Your task to perform on an android device: change the clock display to analog Image 0: 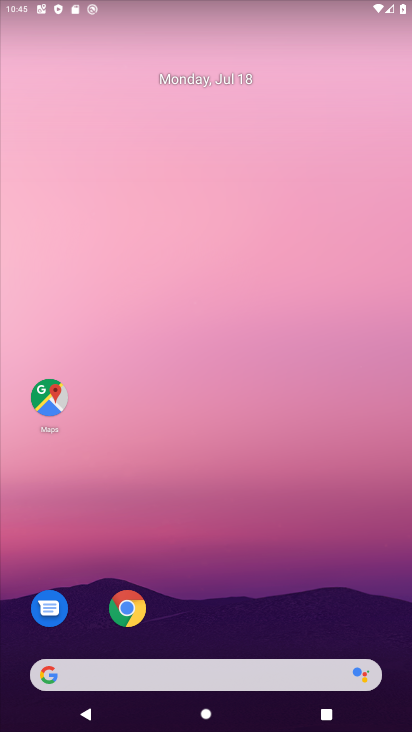
Step 0: drag from (261, 642) to (273, 87)
Your task to perform on an android device: change the clock display to analog Image 1: 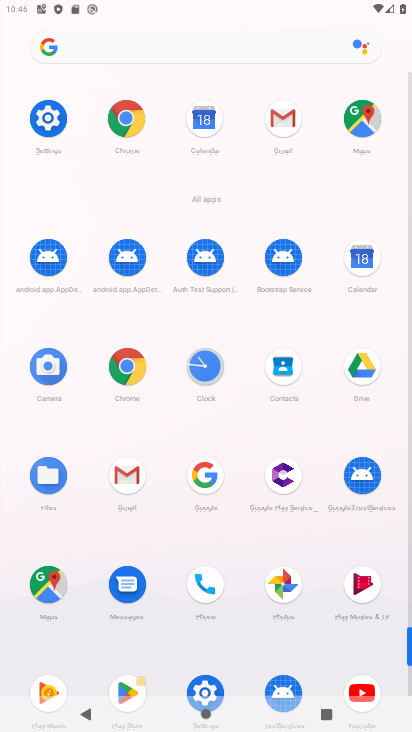
Step 1: click (209, 370)
Your task to perform on an android device: change the clock display to analog Image 2: 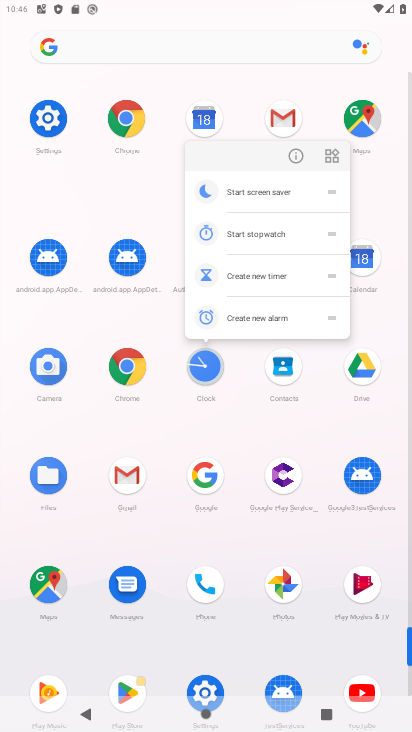
Step 2: click (212, 373)
Your task to perform on an android device: change the clock display to analog Image 3: 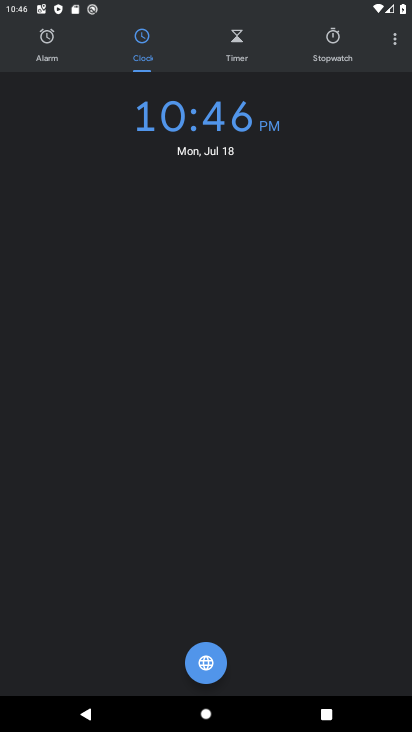
Step 3: click (393, 52)
Your task to perform on an android device: change the clock display to analog Image 4: 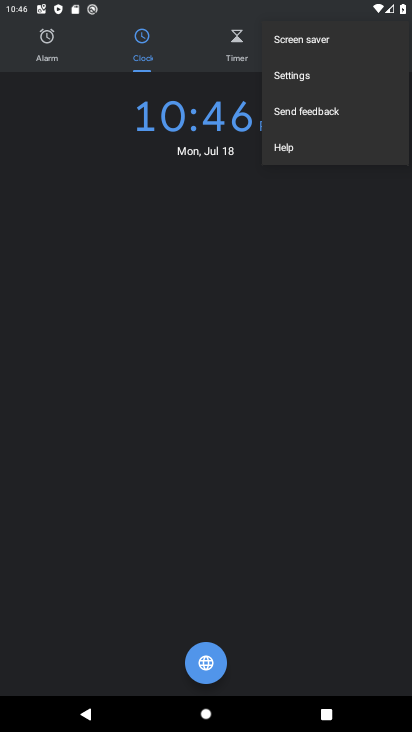
Step 4: click (291, 83)
Your task to perform on an android device: change the clock display to analog Image 5: 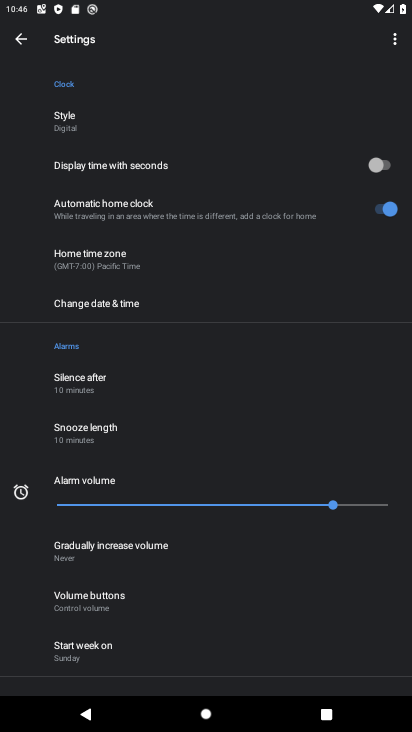
Step 5: click (79, 120)
Your task to perform on an android device: change the clock display to analog Image 6: 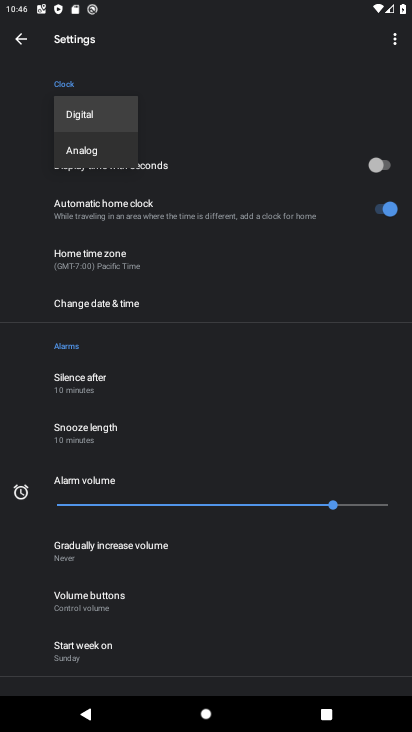
Step 6: click (77, 151)
Your task to perform on an android device: change the clock display to analog Image 7: 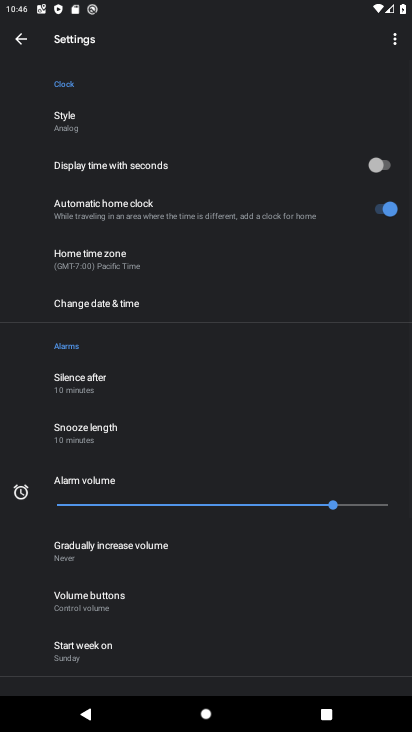
Step 7: task complete